Your task to perform on an android device: change the clock display to show seconds Image 0: 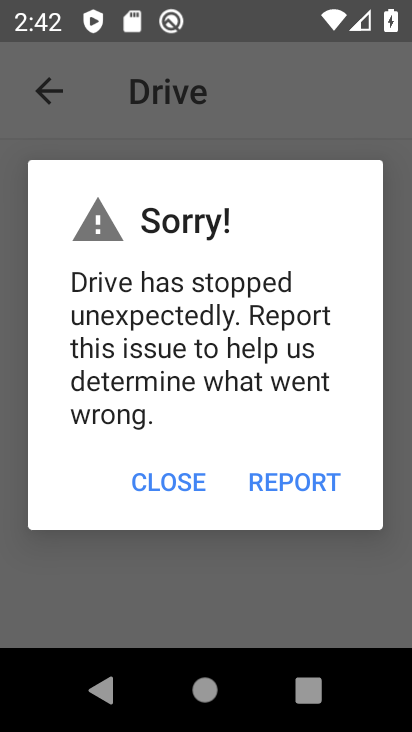
Step 0: press home button
Your task to perform on an android device: change the clock display to show seconds Image 1: 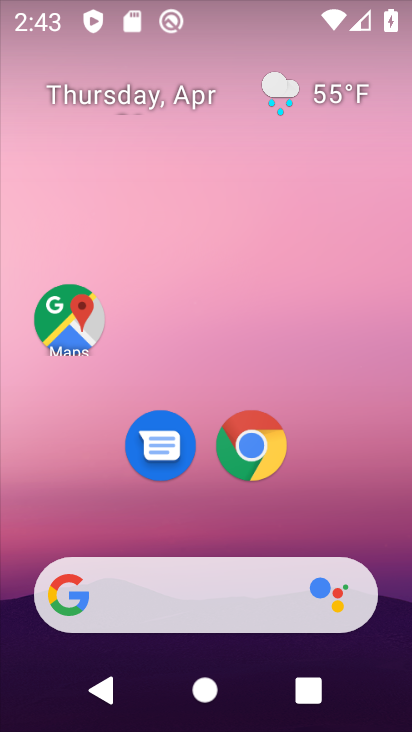
Step 1: drag from (218, 717) to (218, 58)
Your task to perform on an android device: change the clock display to show seconds Image 2: 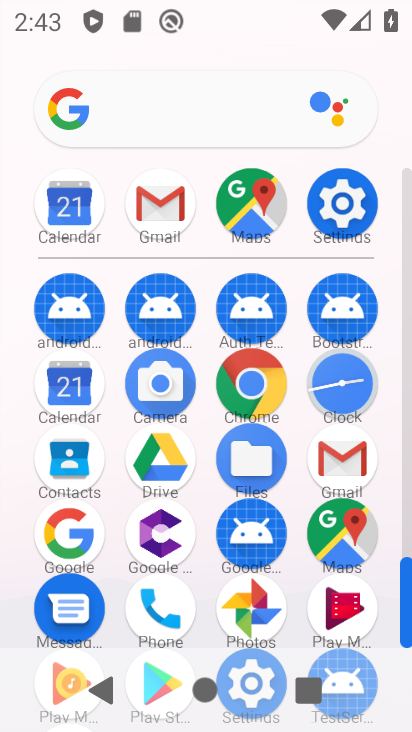
Step 2: click (347, 381)
Your task to perform on an android device: change the clock display to show seconds Image 3: 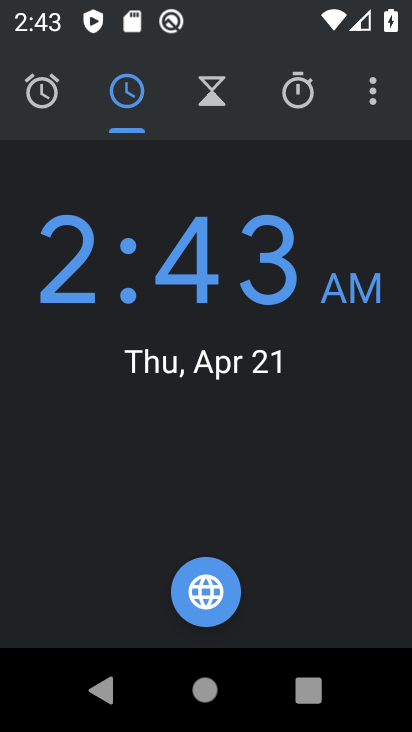
Step 3: drag from (372, 94) to (321, 157)
Your task to perform on an android device: change the clock display to show seconds Image 4: 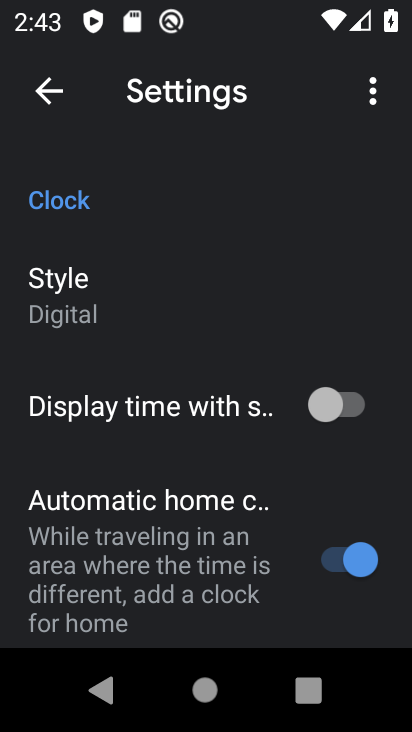
Step 4: click (347, 402)
Your task to perform on an android device: change the clock display to show seconds Image 5: 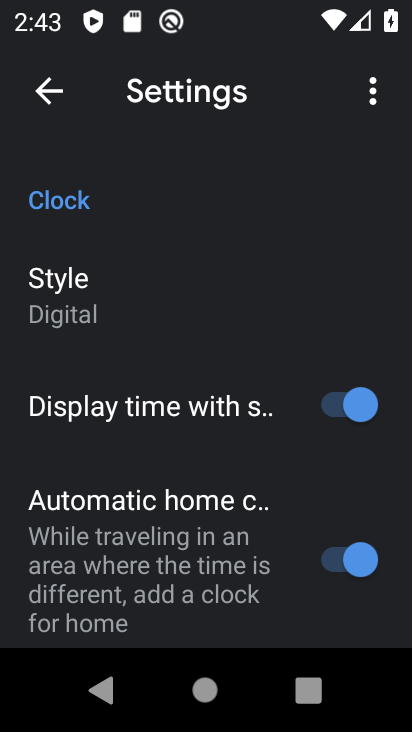
Step 5: task complete